Your task to perform on an android device: see sites visited before in the chrome app Image 0: 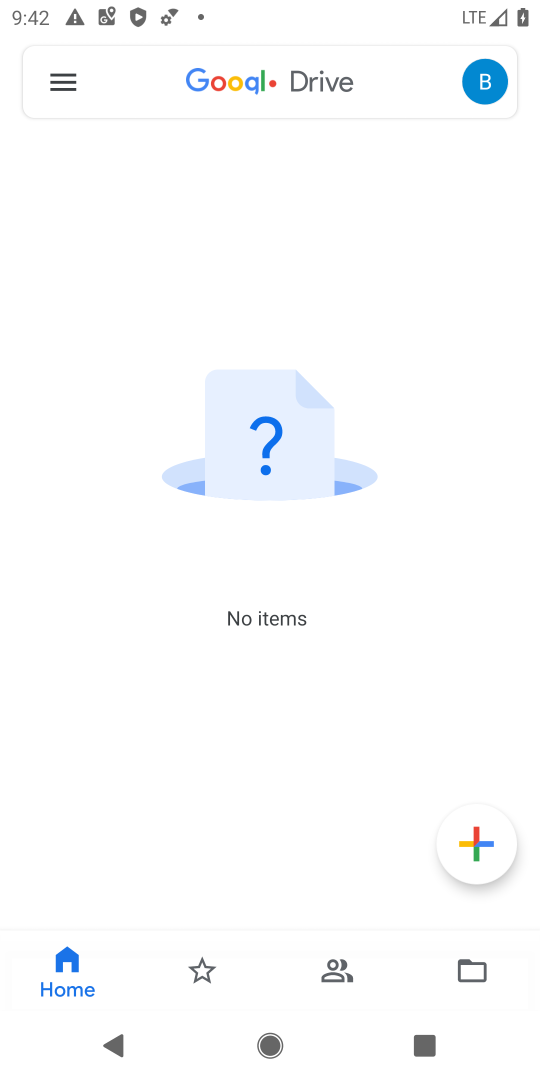
Step 0: press back button
Your task to perform on an android device: see sites visited before in the chrome app Image 1: 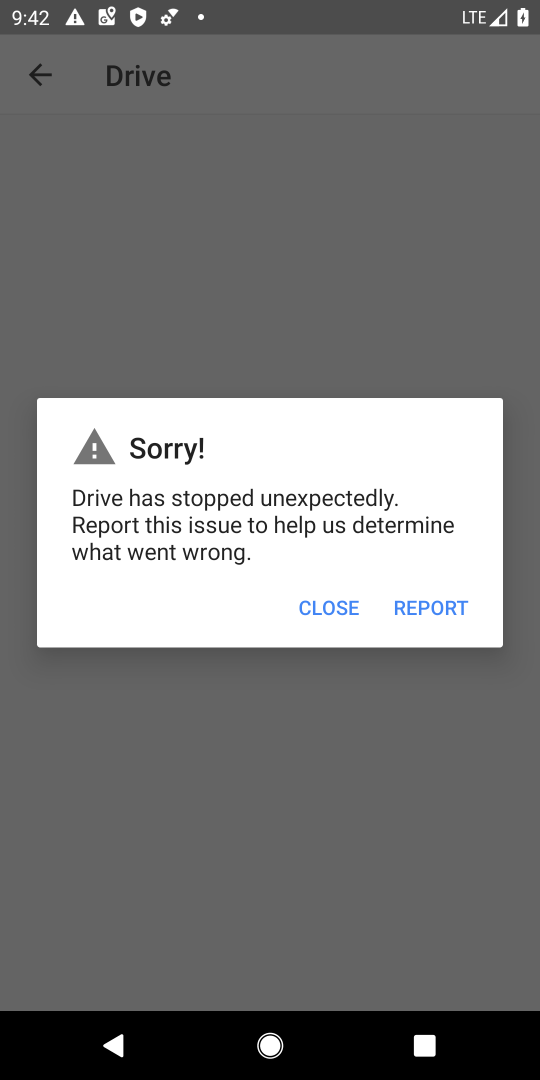
Step 1: press home button
Your task to perform on an android device: see sites visited before in the chrome app Image 2: 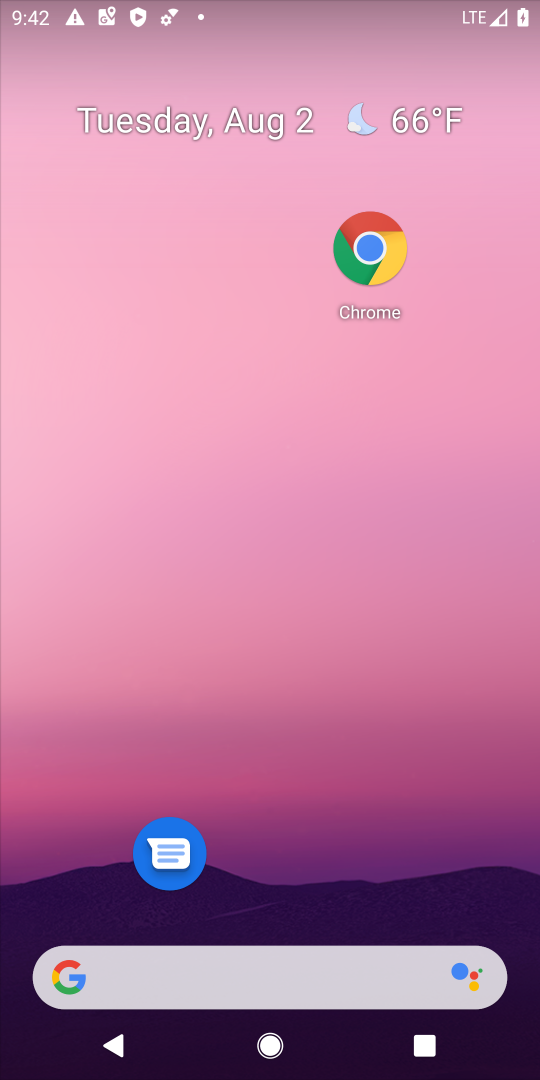
Step 2: drag from (262, 921) to (222, 50)
Your task to perform on an android device: see sites visited before in the chrome app Image 3: 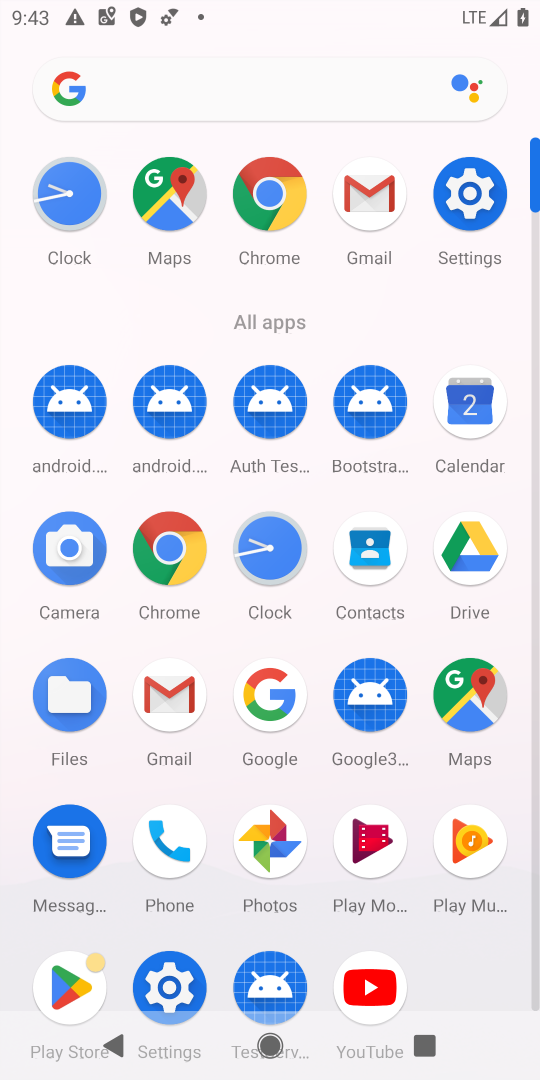
Step 3: click (164, 547)
Your task to perform on an android device: see sites visited before in the chrome app Image 4: 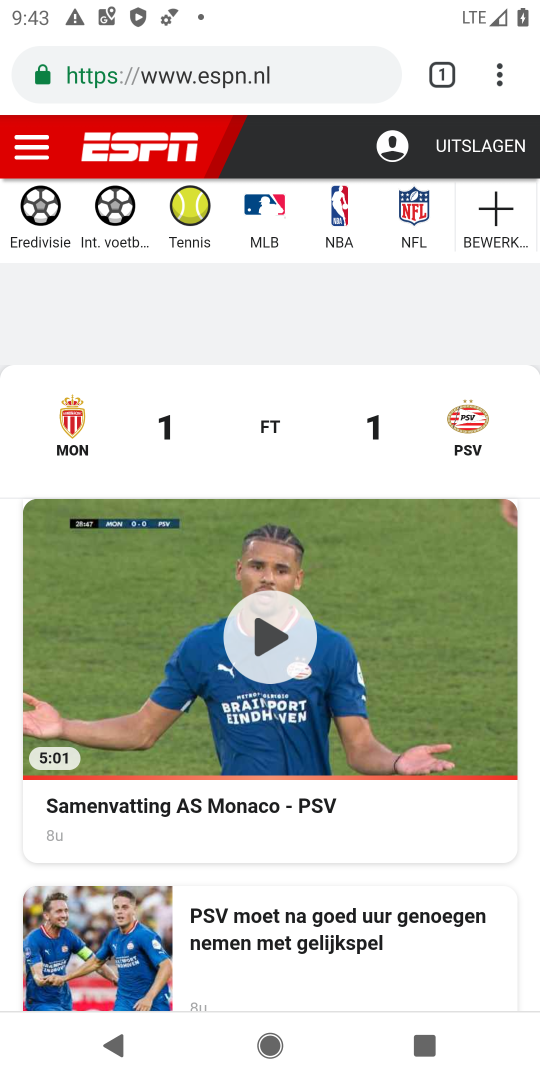
Step 4: task complete